Your task to perform on an android device: Open the phone app and click the voicemail tab. Image 0: 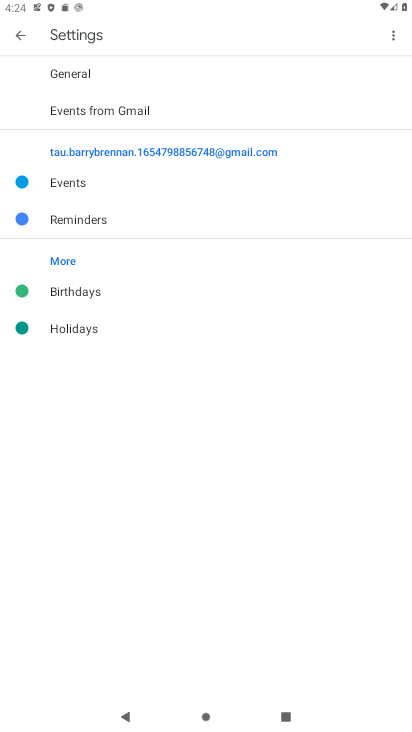
Step 0: press home button
Your task to perform on an android device: Open the phone app and click the voicemail tab. Image 1: 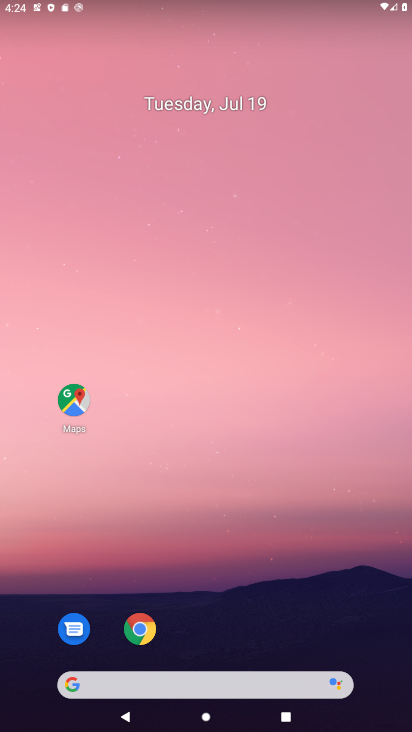
Step 1: drag from (283, 669) to (281, 262)
Your task to perform on an android device: Open the phone app and click the voicemail tab. Image 2: 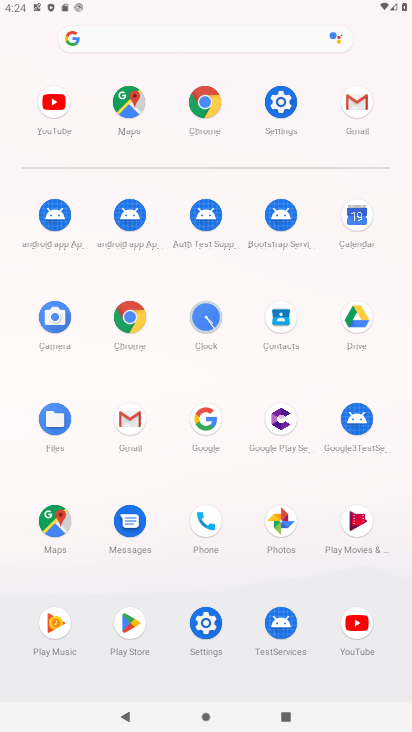
Step 2: click (208, 516)
Your task to perform on an android device: Open the phone app and click the voicemail tab. Image 3: 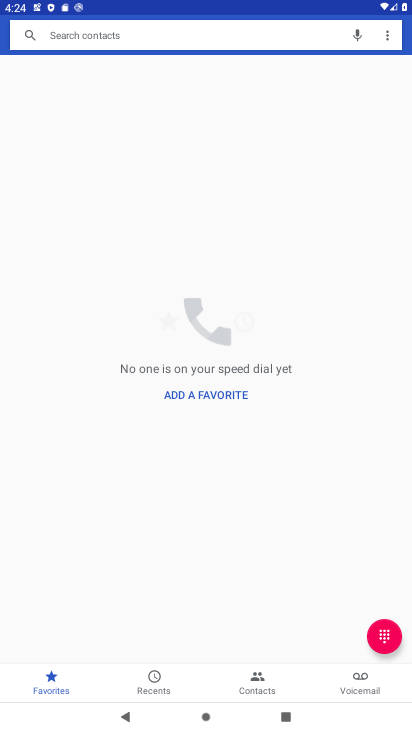
Step 3: click (352, 690)
Your task to perform on an android device: Open the phone app and click the voicemail tab. Image 4: 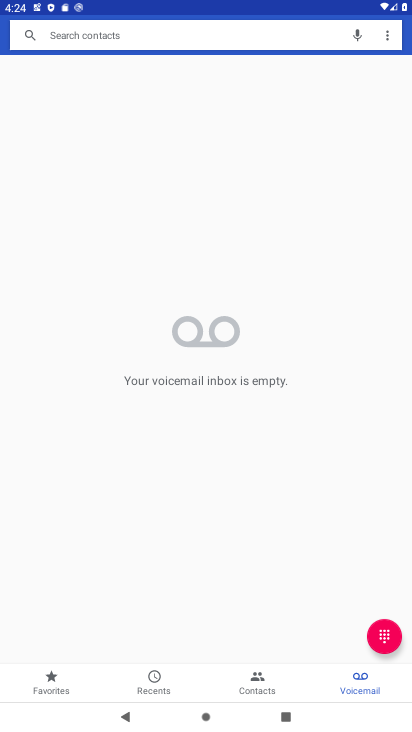
Step 4: task complete